Your task to perform on an android device: turn vacation reply on in the gmail app Image 0: 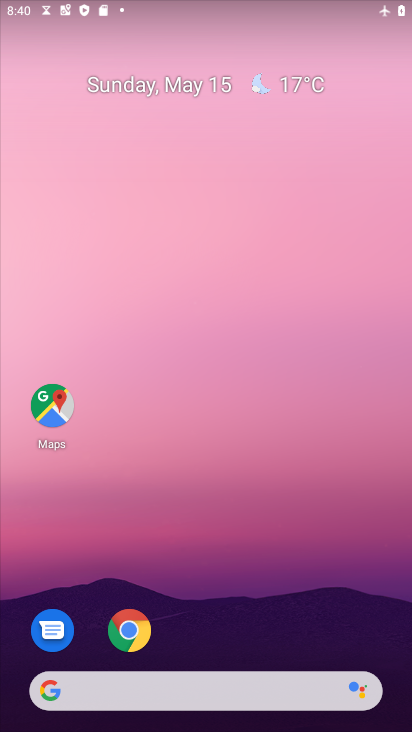
Step 0: drag from (372, 615) to (406, 103)
Your task to perform on an android device: turn vacation reply on in the gmail app Image 1: 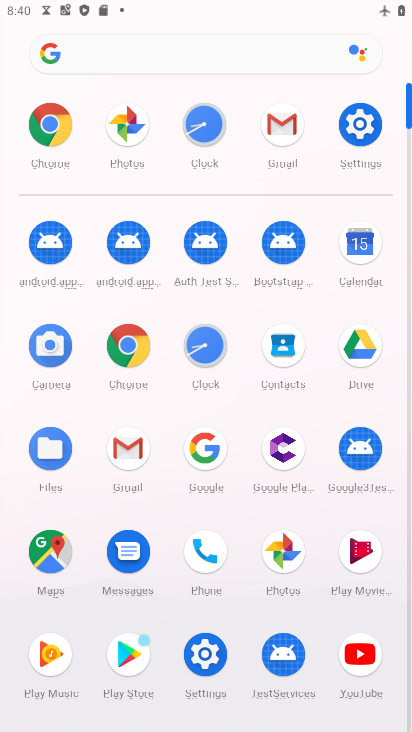
Step 1: click (287, 137)
Your task to perform on an android device: turn vacation reply on in the gmail app Image 2: 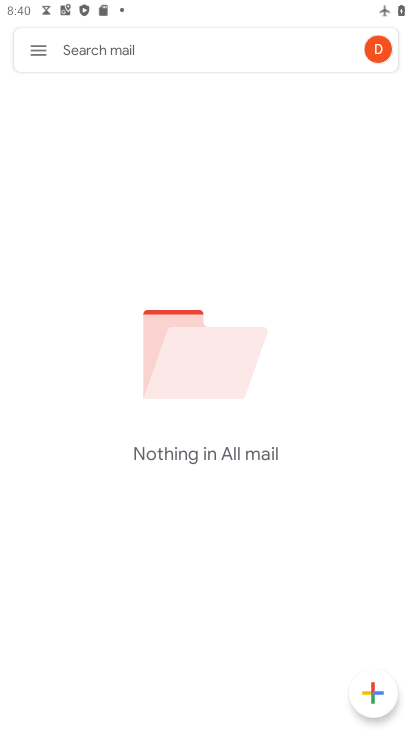
Step 2: click (31, 43)
Your task to perform on an android device: turn vacation reply on in the gmail app Image 3: 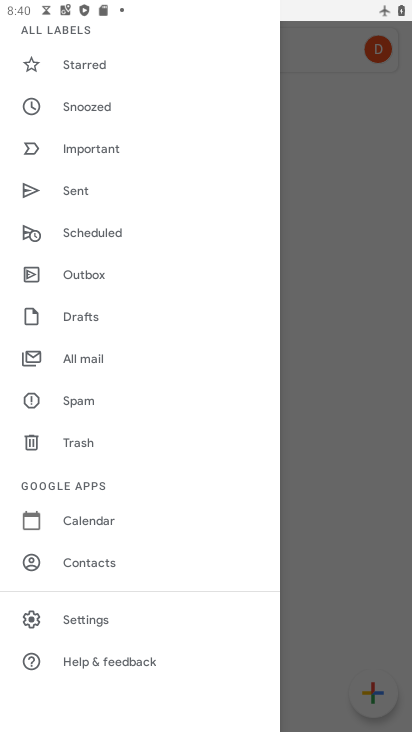
Step 3: click (87, 617)
Your task to perform on an android device: turn vacation reply on in the gmail app Image 4: 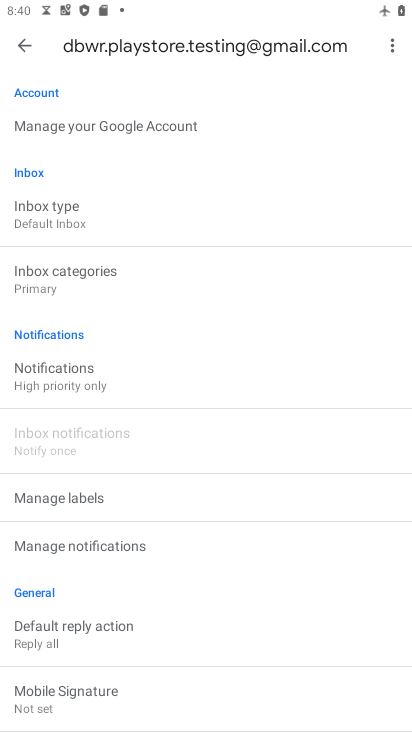
Step 4: drag from (135, 689) to (302, 169)
Your task to perform on an android device: turn vacation reply on in the gmail app Image 5: 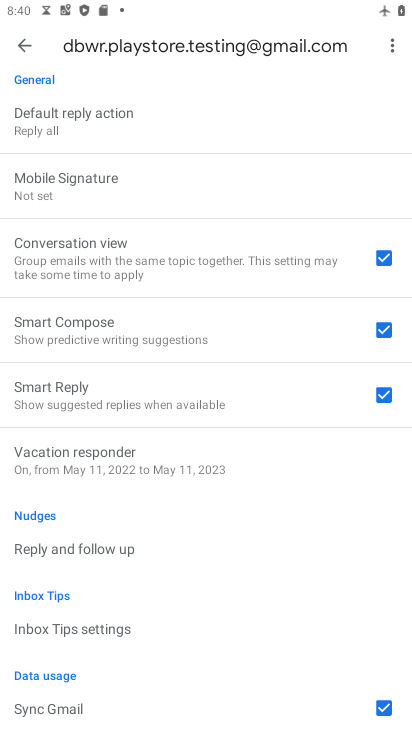
Step 5: drag from (191, 581) to (278, 153)
Your task to perform on an android device: turn vacation reply on in the gmail app Image 6: 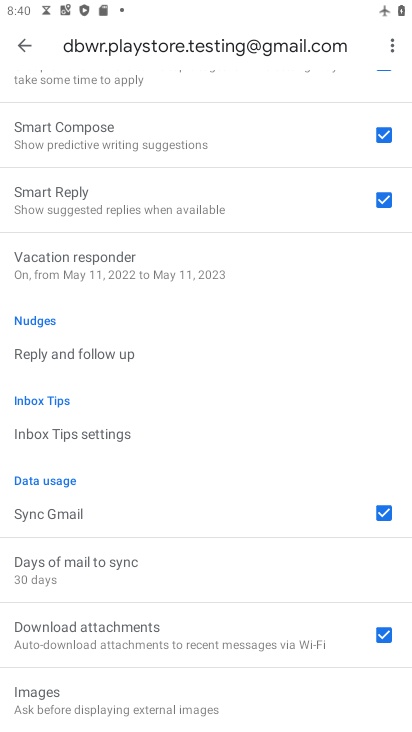
Step 6: click (137, 266)
Your task to perform on an android device: turn vacation reply on in the gmail app Image 7: 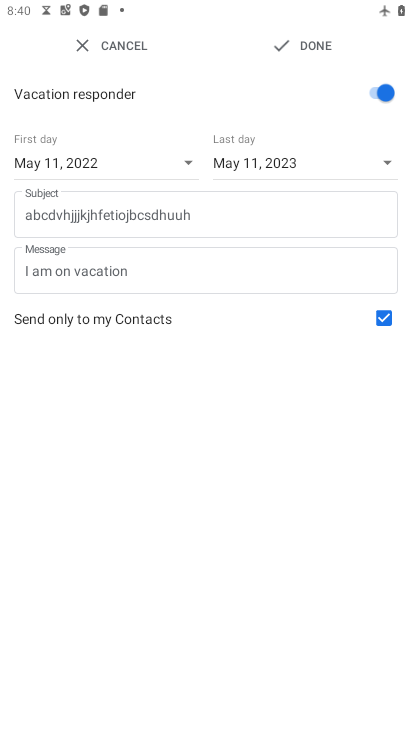
Step 7: task complete